Your task to perform on an android device: clear history in the chrome app Image 0: 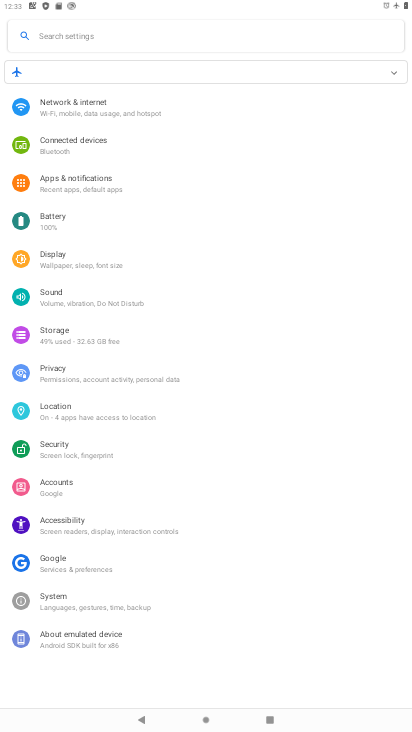
Step 0: press home button
Your task to perform on an android device: clear history in the chrome app Image 1: 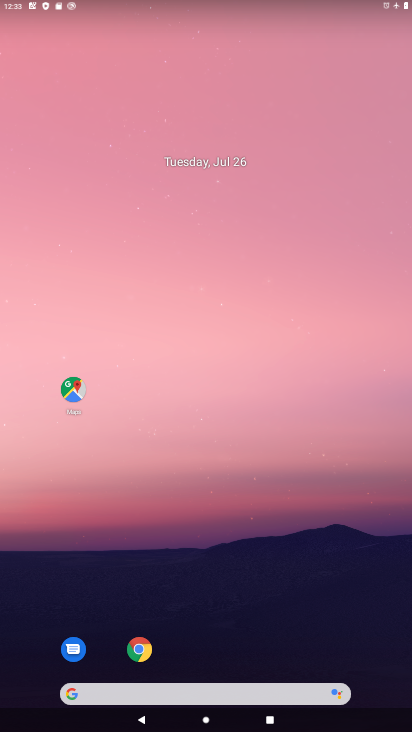
Step 1: click (139, 650)
Your task to perform on an android device: clear history in the chrome app Image 2: 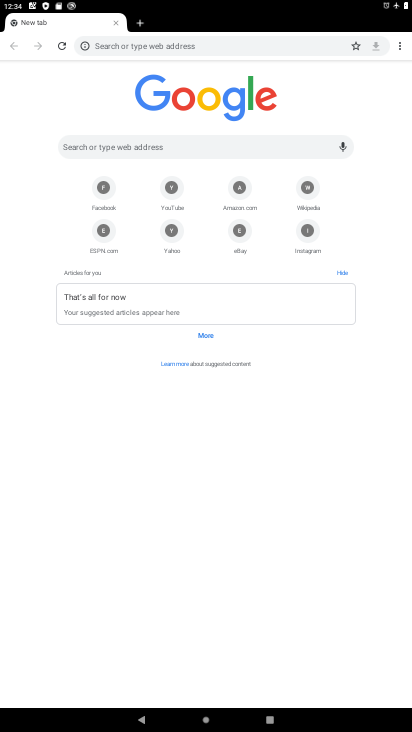
Step 2: click (402, 46)
Your task to perform on an android device: clear history in the chrome app Image 3: 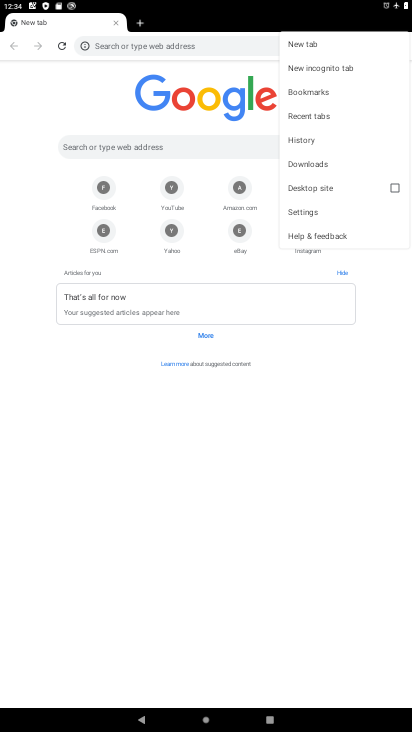
Step 3: click (302, 143)
Your task to perform on an android device: clear history in the chrome app Image 4: 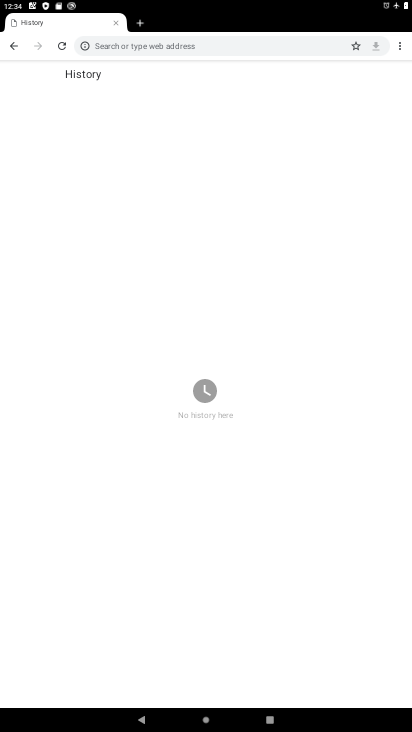
Step 4: task complete